Your task to perform on an android device: open app "Microsoft Excel" (install if not already installed) and go to login screen Image 0: 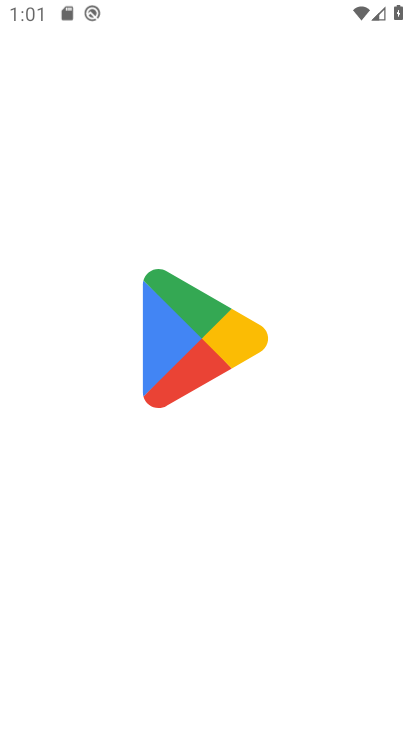
Step 0: press home button
Your task to perform on an android device: open app "Microsoft Excel" (install if not already installed) and go to login screen Image 1: 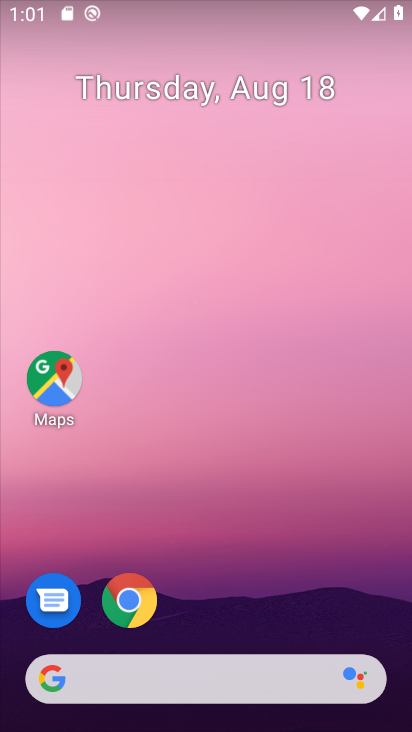
Step 1: drag from (308, 619) to (271, 166)
Your task to perform on an android device: open app "Microsoft Excel" (install if not already installed) and go to login screen Image 2: 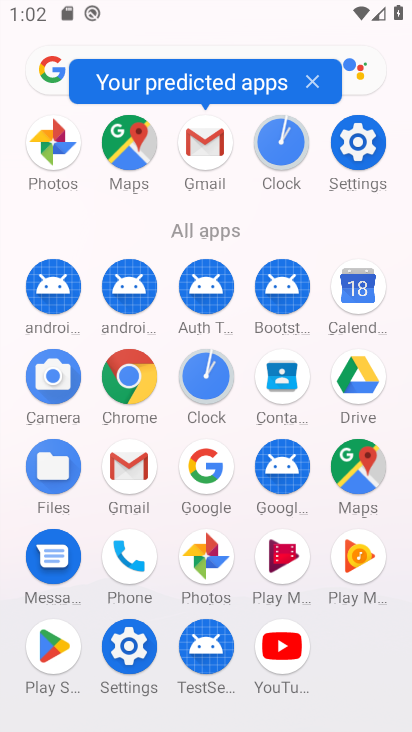
Step 2: click (46, 652)
Your task to perform on an android device: open app "Microsoft Excel" (install if not already installed) and go to login screen Image 3: 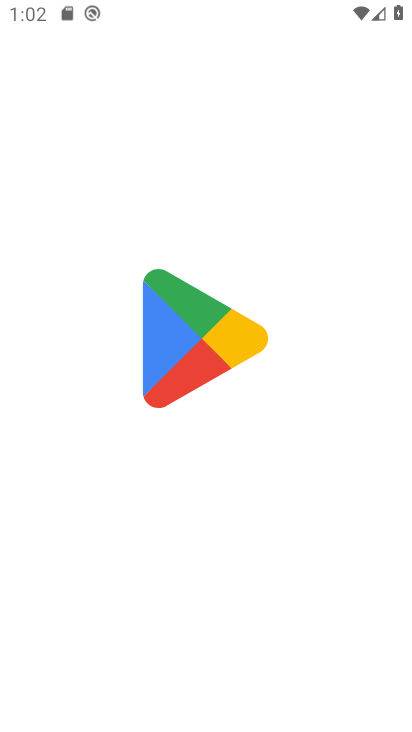
Step 3: press back button
Your task to perform on an android device: open app "Microsoft Excel" (install if not already installed) and go to login screen Image 4: 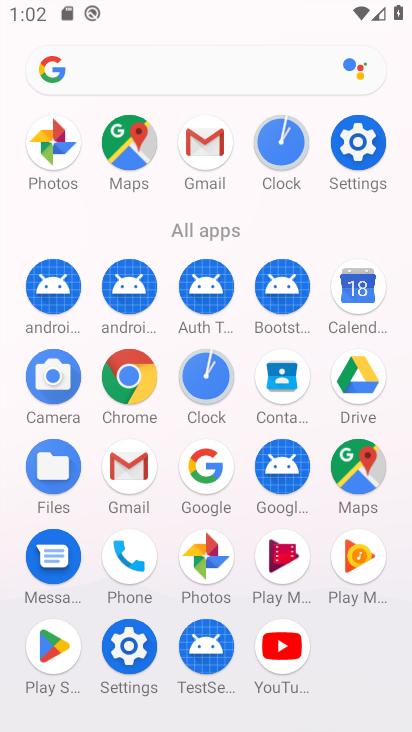
Step 4: click (48, 643)
Your task to perform on an android device: open app "Microsoft Excel" (install if not already installed) and go to login screen Image 5: 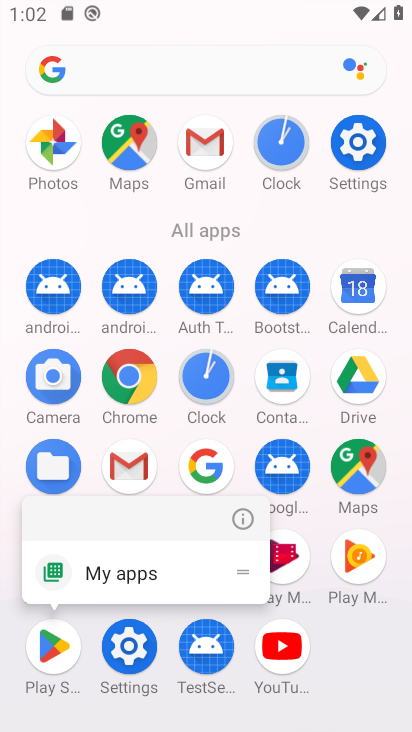
Step 5: click (247, 528)
Your task to perform on an android device: open app "Microsoft Excel" (install if not already installed) and go to login screen Image 6: 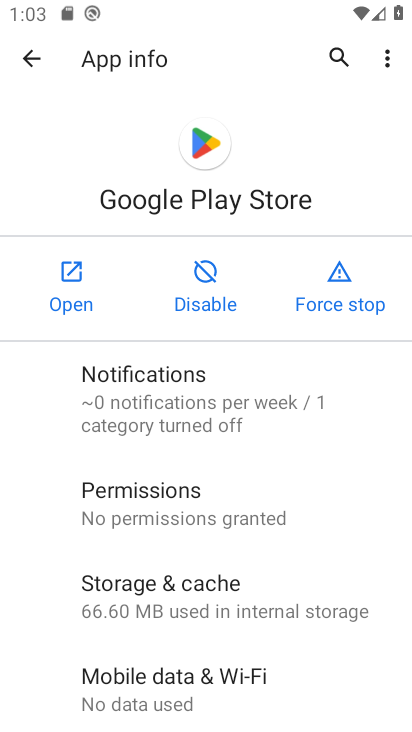
Step 6: click (274, 591)
Your task to perform on an android device: open app "Microsoft Excel" (install if not already installed) and go to login screen Image 7: 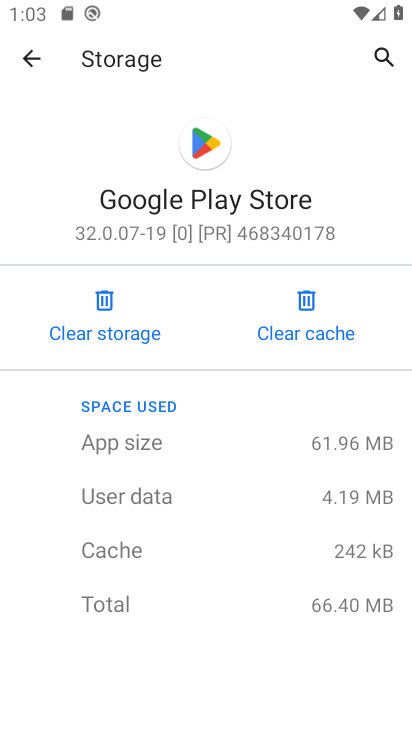
Step 7: click (305, 299)
Your task to perform on an android device: open app "Microsoft Excel" (install if not already installed) and go to login screen Image 8: 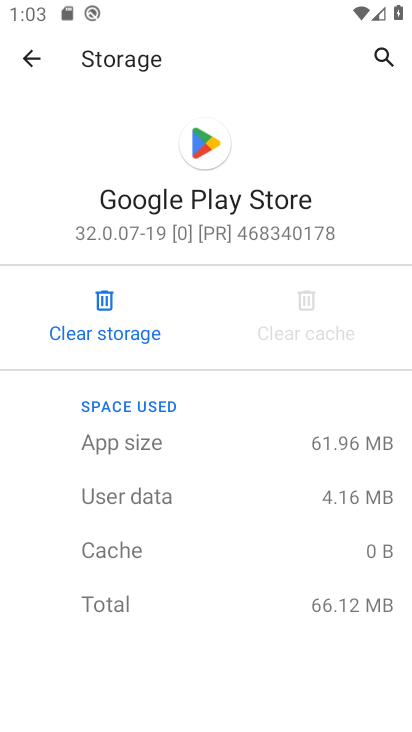
Step 8: click (100, 313)
Your task to perform on an android device: open app "Microsoft Excel" (install if not already installed) and go to login screen Image 9: 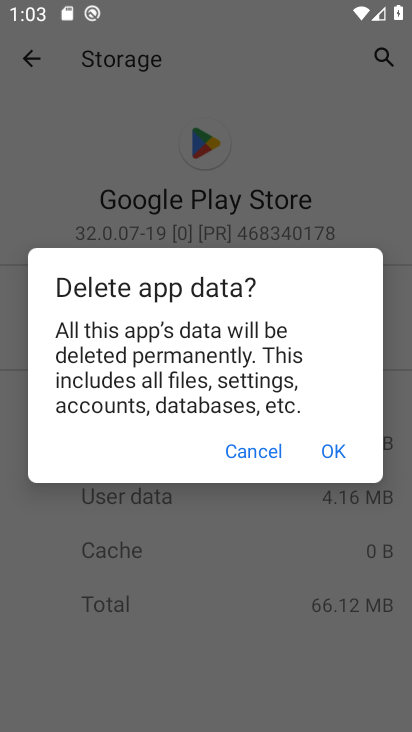
Step 9: click (325, 449)
Your task to perform on an android device: open app "Microsoft Excel" (install if not already installed) and go to login screen Image 10: 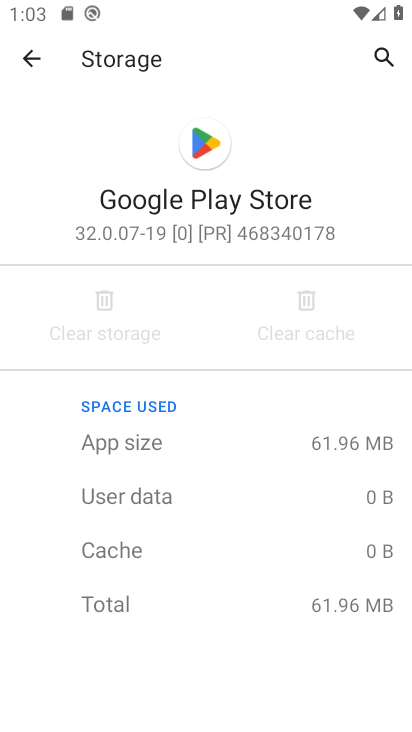
Step 10: press home button
Your task to perform on an android device: open app "Microsoft Excel" (install if not already installed) and go to login screen Image 11: 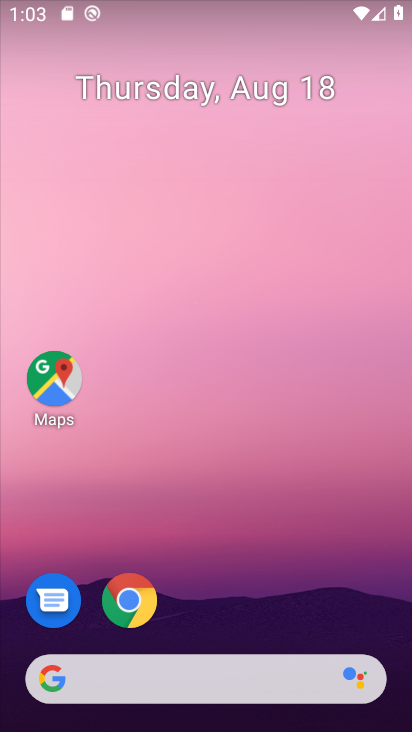
Step 11: drag from (346, 589) to (282, 166)
Your task to perform on an android device: open app "Microsoft Excel" (install if not already installed) and go to login screen Image 12: 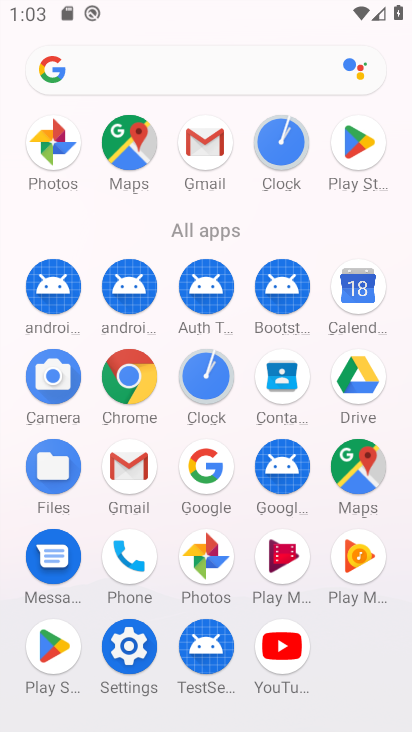
Step 12: click (43, 650)
Your task to perform on an android device: open app "Microsoft Excel" (install if not already installed) and go to login screen Image 13: 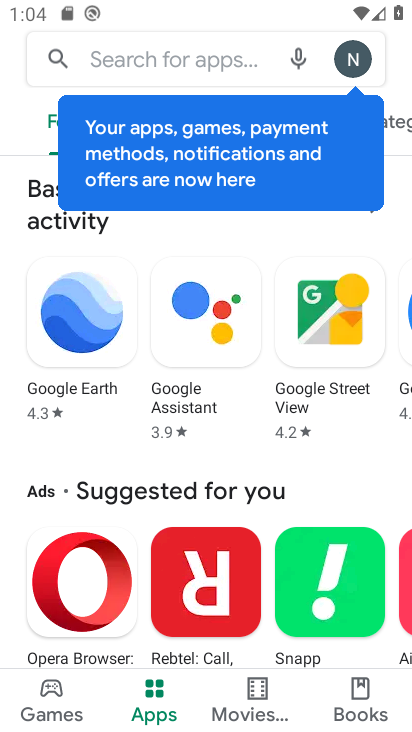
Step 13: click (192, 66)
Your task to perform on an android device: open app "Microsoft Excel" (install if not already installed) and go to login screen Image 14: 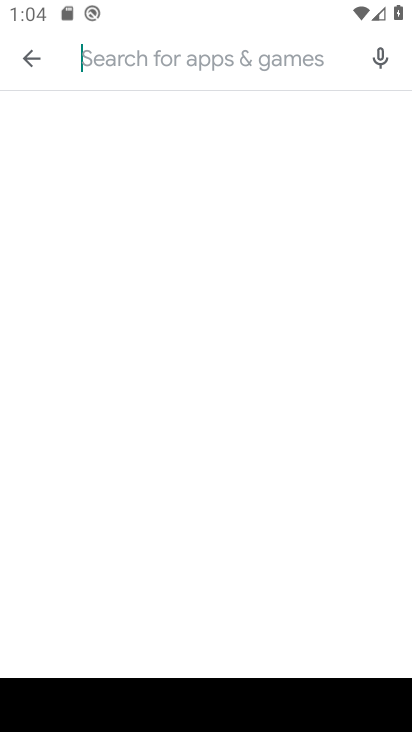
Step 14: type "microsoft excel"
Your task to perform on an android device: open app "Microsoft Excel" (install if not already installed) and go to login screen Image 15: 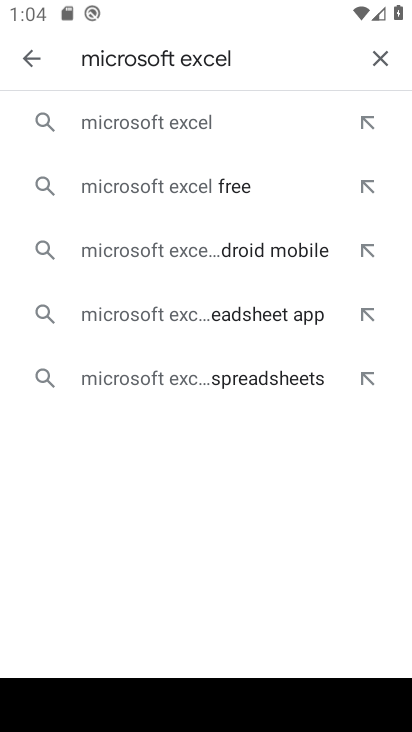
Step 15: click (220, 127)
Your task to perform on an android device: open app "Microsoft Excel" (install if not already installed) and go to login screen Image 16: 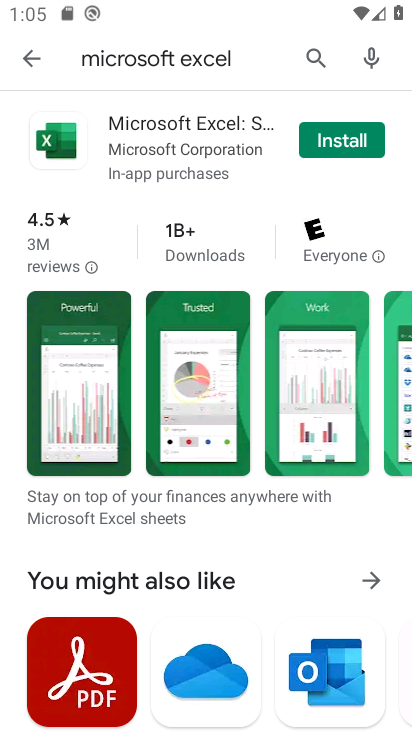
Step 16: click (352, 136)
Your task to perform on an android device: open app "Microsoft Excel" (install if not already installed) and go to login screen Image 17: 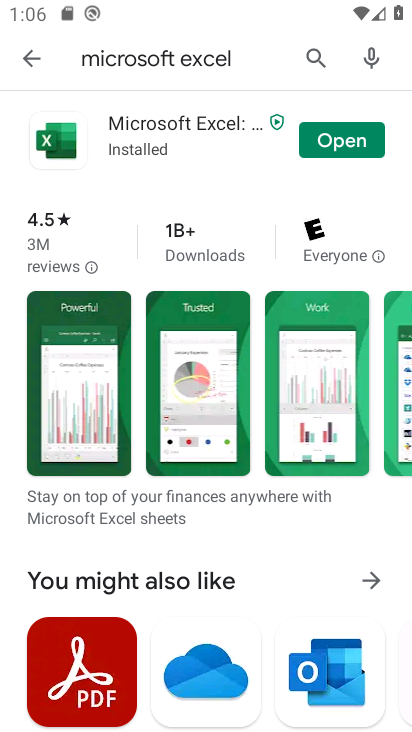
Step 17: click (352, 136)
Your task to perform on an android device: open app "Microsoft Excel" (install if not already installed) and go to login screen Image 18: 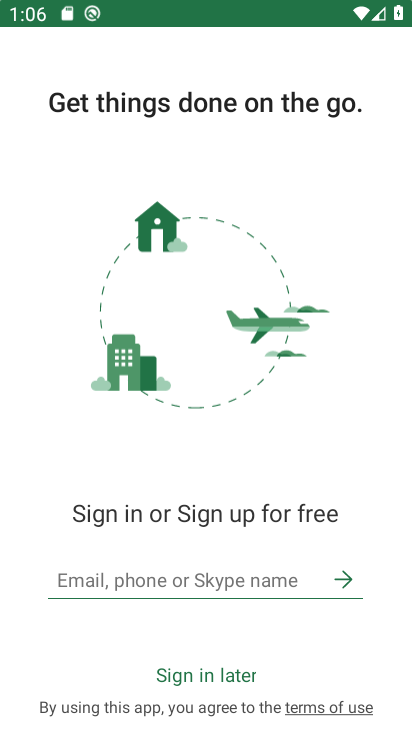
Step 18: task complete